Your task to perform on an android device: open the mobile data screen to see how much data has been used Image 0: 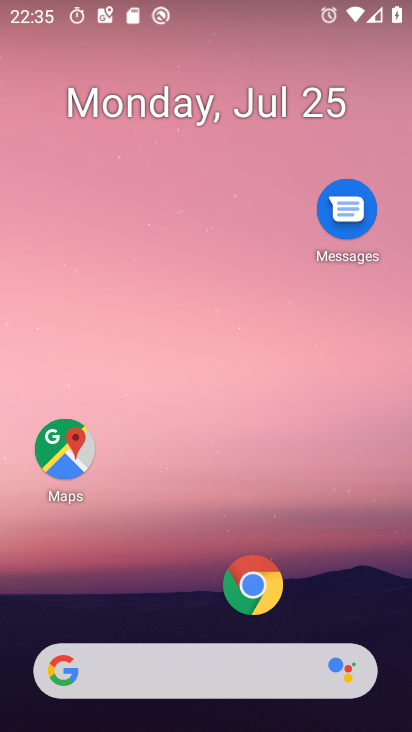
Step 0: press home button
Your task to perform on an android device: open the mobile data screen to see how much data has been used Image 1: 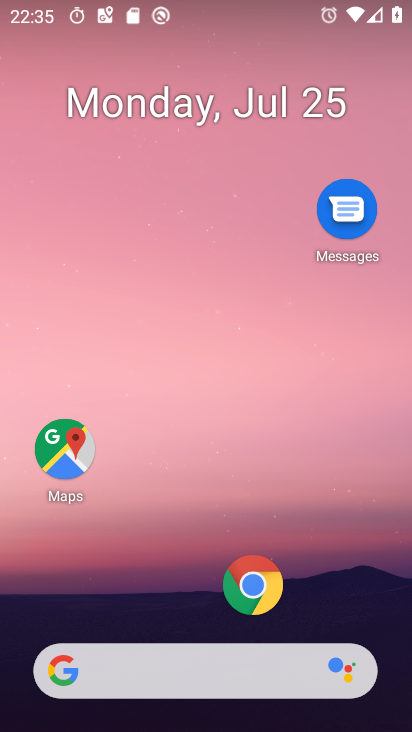
Step 1: drag from (193, 660) to (255, 83)
Your task to perform on an android device: open the mobile data screen to see how much data has been used Image 2: 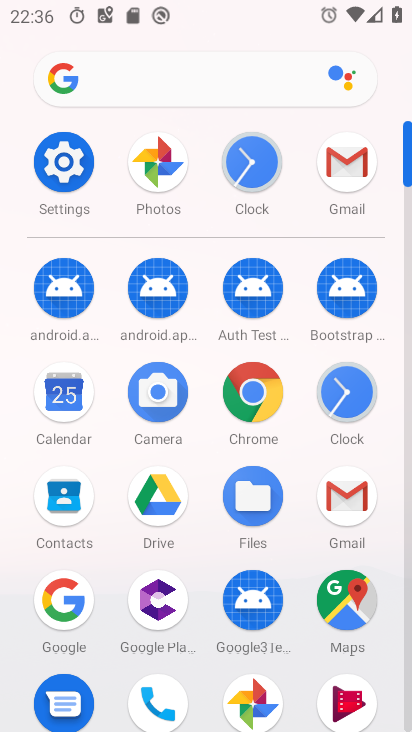
Step 2: click (66, 168)
Your task to perform on an android device: open the mobile data screen to see how much data has been used Image 3: 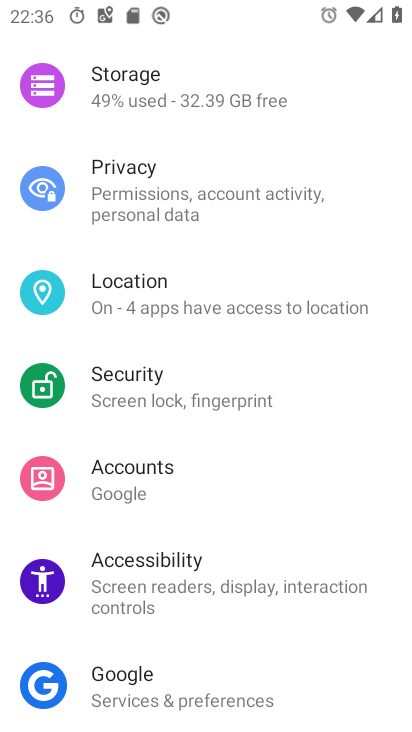
Step 3: drag from (326, 441) to (266, 670)
Your task to perform on an android device: open the mobile data screen to see how much data has been used Image 4: 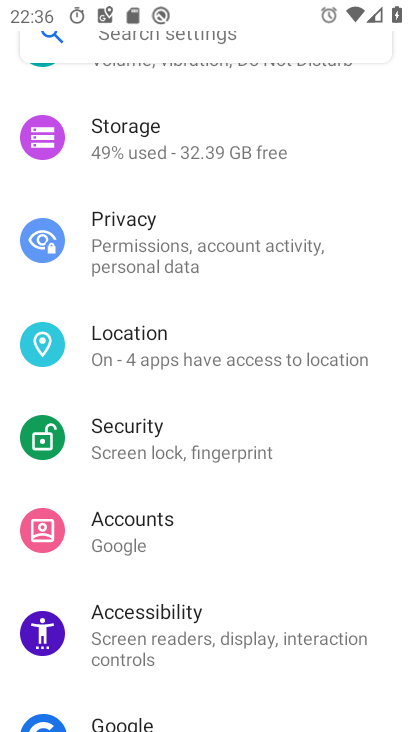
Step 4: drag from (276, 106) to (267, 627)
Your task to perform on an android device: open the mobile data screen to see how much data has been used Image 5: 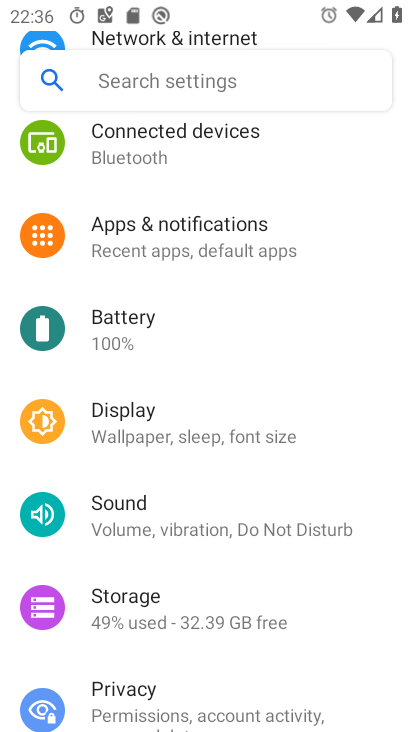
Step 5: drag from (291, 365) to (273, 638)
Your task to perform on an android device: open the mobile data screen to see how much data has been used Image 6: 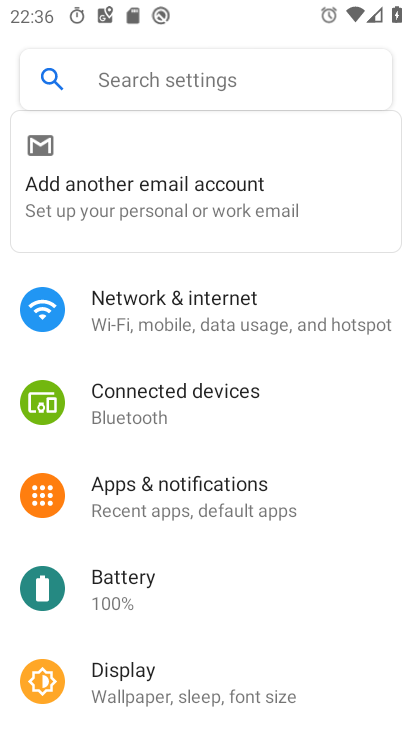
Step 6: click (204, 307)
Your task to perform on an android device: open the mobile data screen to see how much data has been used Image 7: 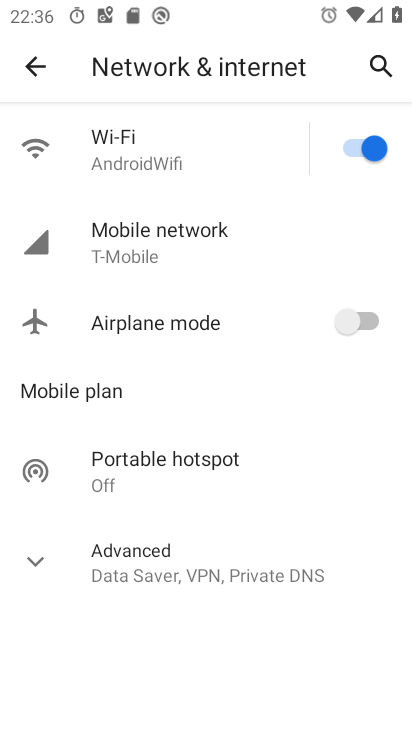
Step 7: click (172, 238)
Your task to perform on an android device: open the mobile data screen to see how much data has been used Image 8: 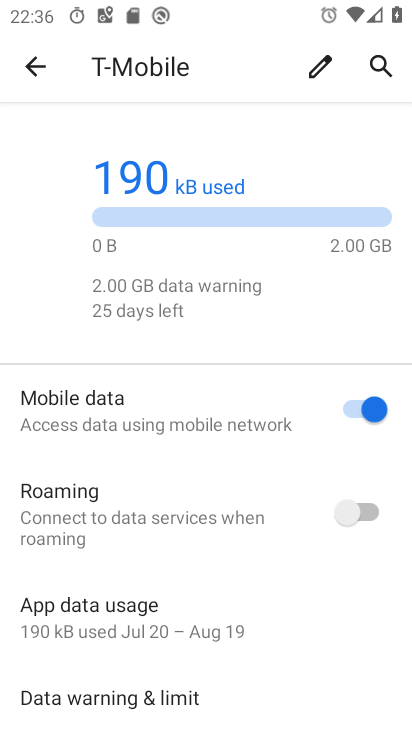
Step 8: task complete